Your task to perform on an android device: Show me the alarms in the clock app Image 0: 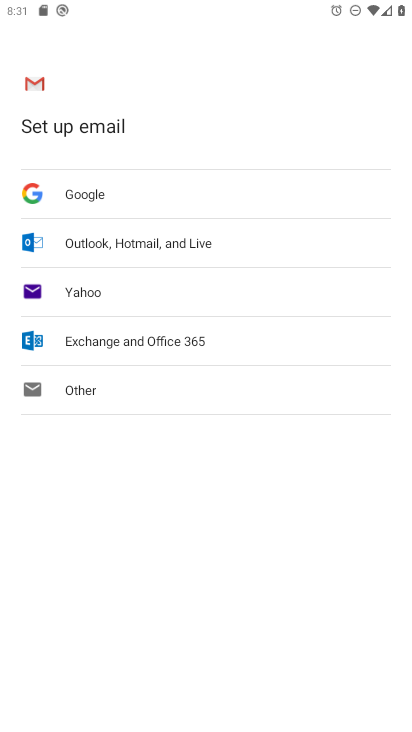
Step 0: press home button
Your task to perform on an android device: Show me the alarms in the clock app Image 1: 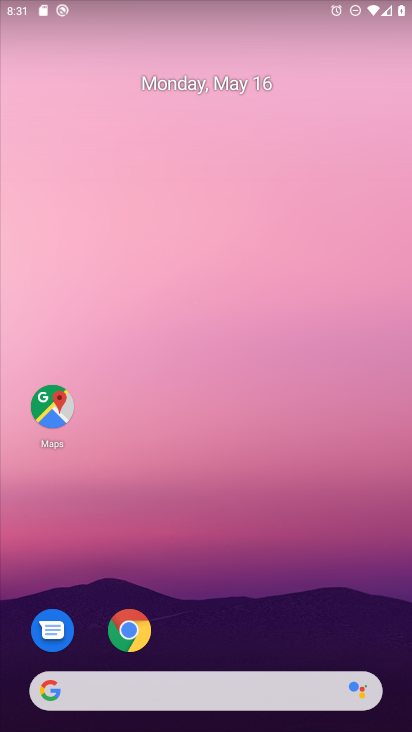
Step 1: drag from (282, 563) to (316, 210)
Your task to perform on an android device: Show me the alarms in the clock app Image 2: 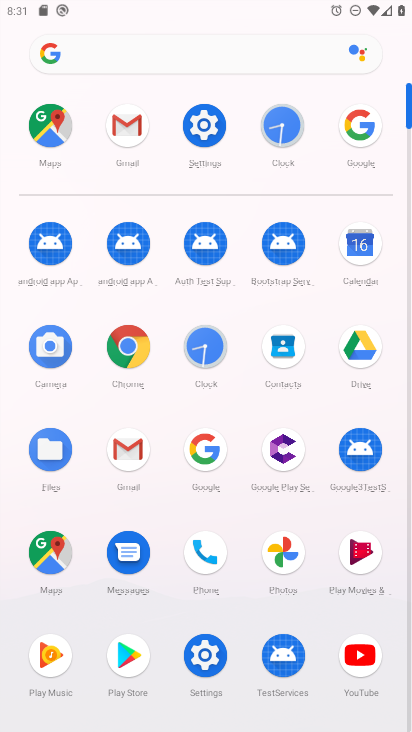
Step 2: click (270, 121)
Your task to perform on an android device: Show me the alarms in the clock app Image 3: 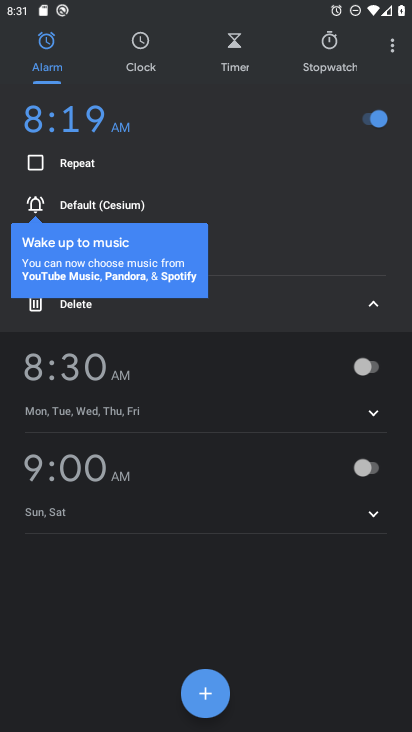
Step 3: task complete